Your task to perform on an android device: open wifi settings Image 0: 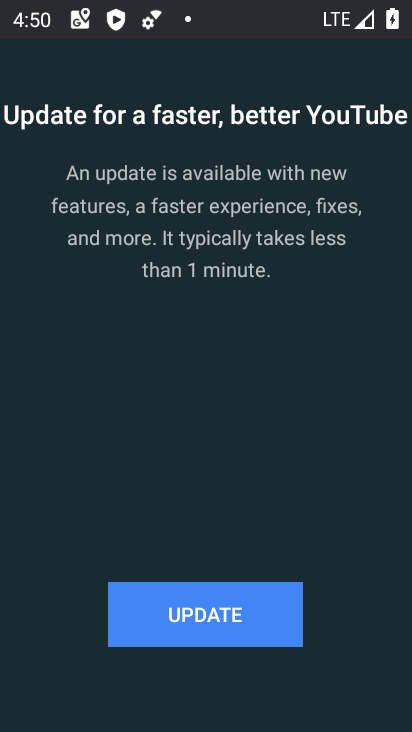
Step 0: press home button
Your task to perform on an android device: open wifi settings Image 1: 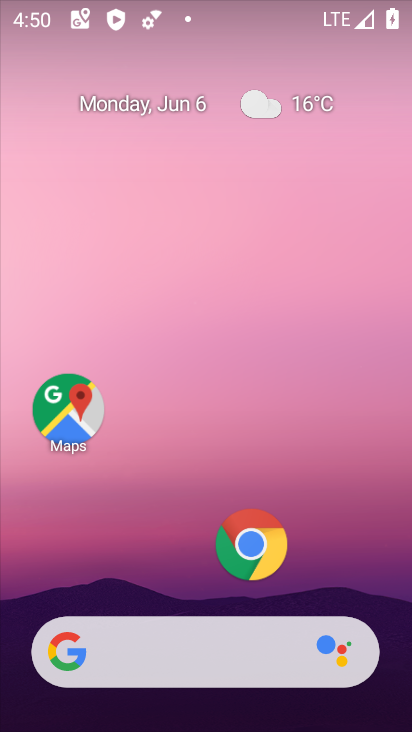
Step 1: drag from (199, 593) to (236, 144)
Your task to perform on an android device: open wifi settings Image 2: 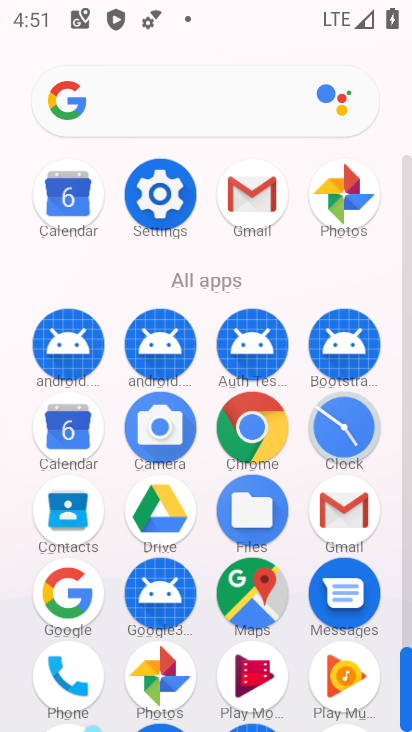
Step 2: click (163, 186)
Your task to perform on an android device: open wifi settings Image 3: 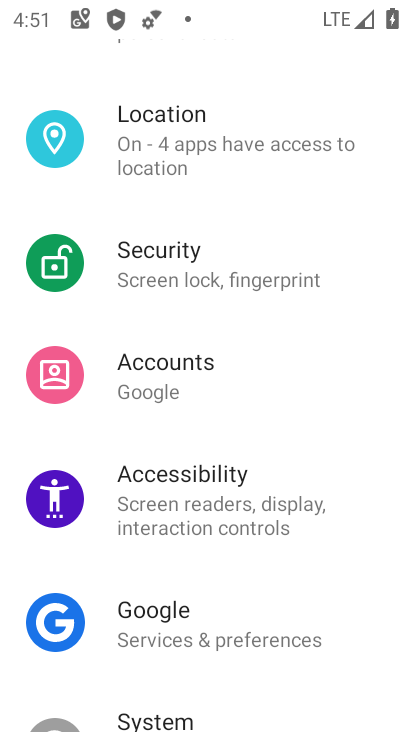
Step 3: drag from (215, 107) to (252, 661)
Your task to perform on an android device: open wifi settings Image 4: 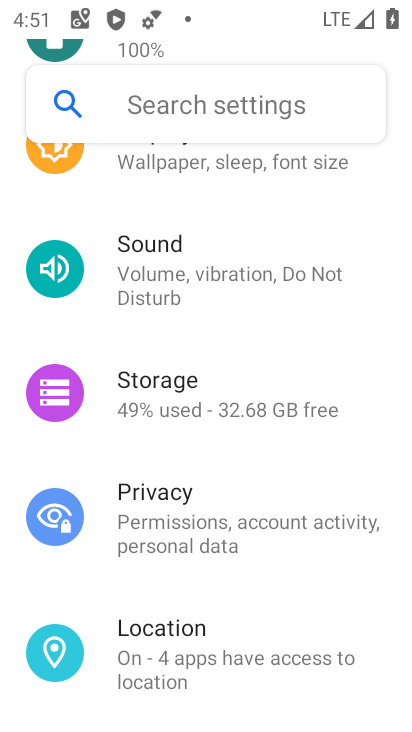
Step 4: drag from (210, 189) to (215, 649)
Your task to perform on an android device: open wifi settings Image 5: 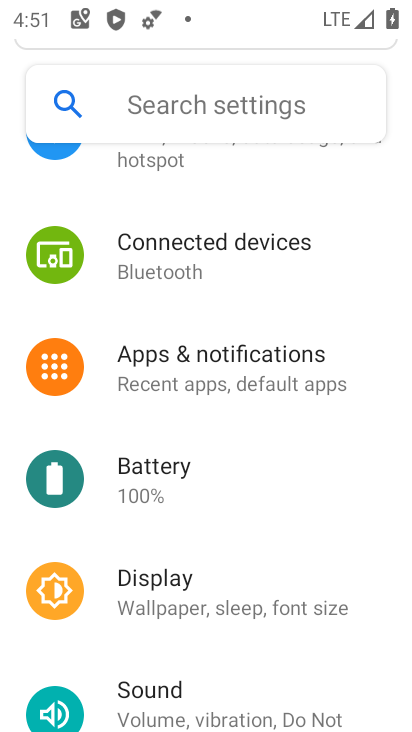
Step 5: drag from (177, 187) to (251, 667)
Your task to perform on an android device: open wifi settings Image 6: 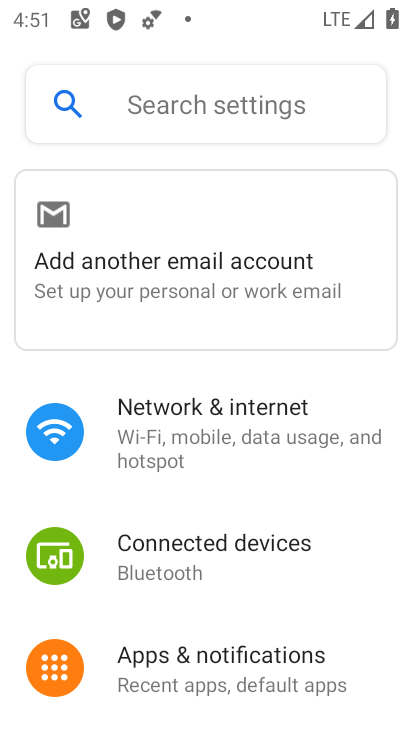
Step 6: click (217, 447)
Your task to perform on an android device: open wifi settings Image 7: 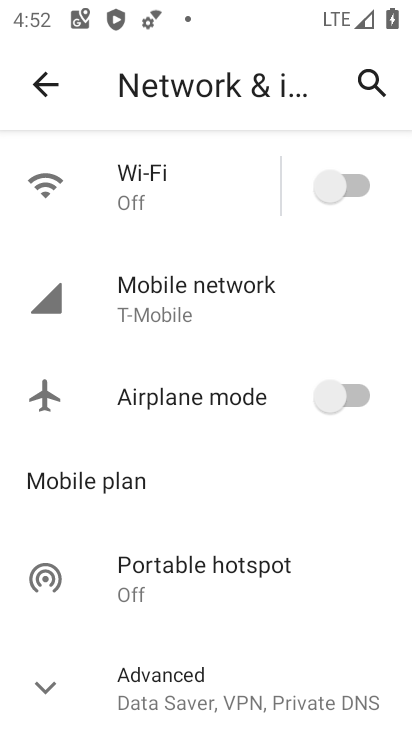
Step 7: click (213, 184)
Your task to perform on an android device: open wifi settings Image 8: 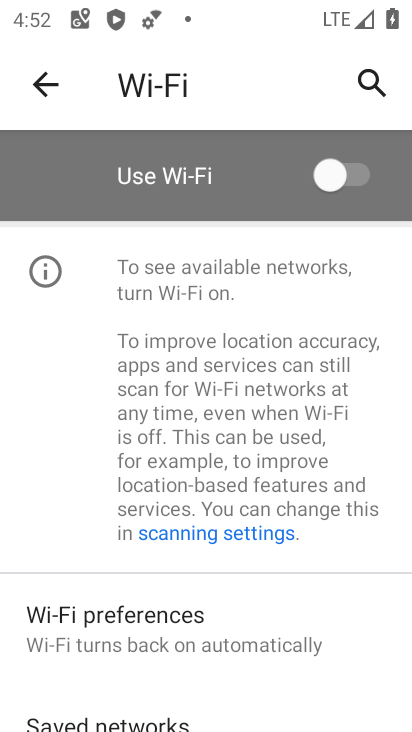
Step 8: click (347, 174)
Your task to perform on an android device: open wifi settings Image 9: 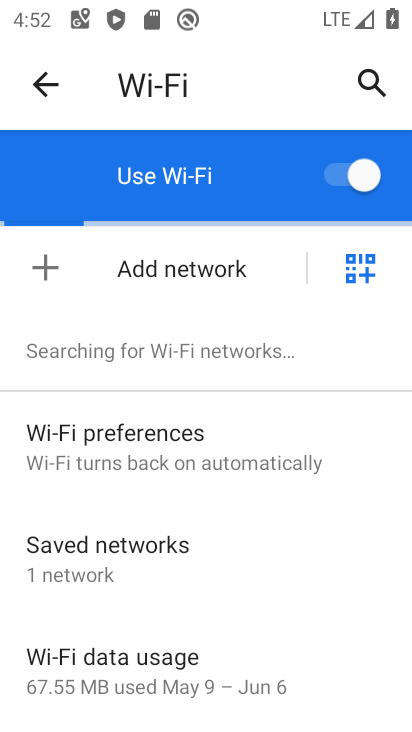
Step 9: task complete